Your task to perform on an android device: Open calendar and show me the fourth week of next month Image 0: 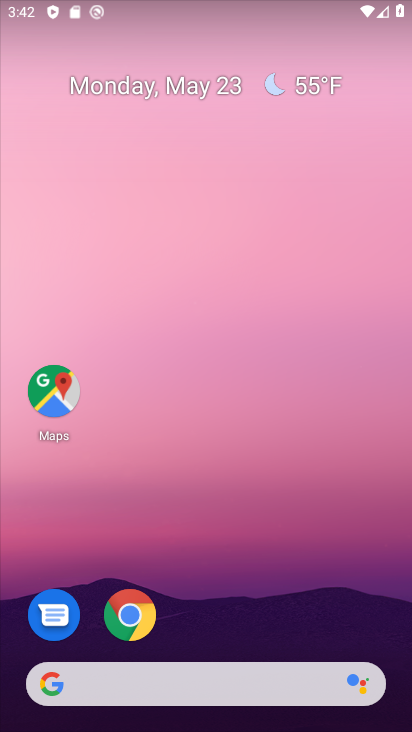
Step 0: drag from (373, 614) to (317, 98)
Your task to perform on an android device: Open calendar and show me the fourth week of next month Image 1: 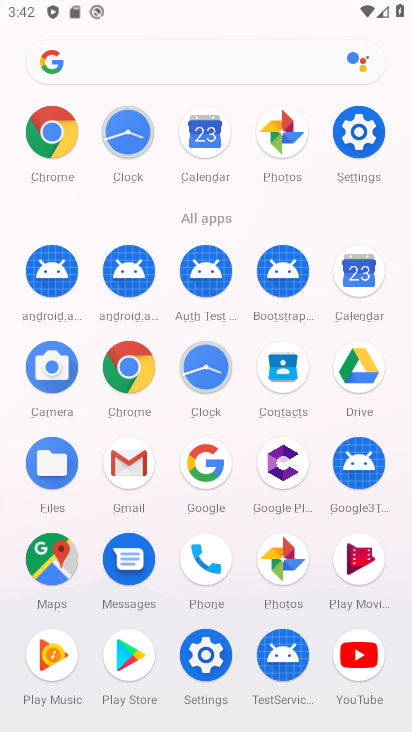
Step 1: click (353, 296)
Your task to perform on an android device: Open calendar and show me the fourth week of next month Image 2: 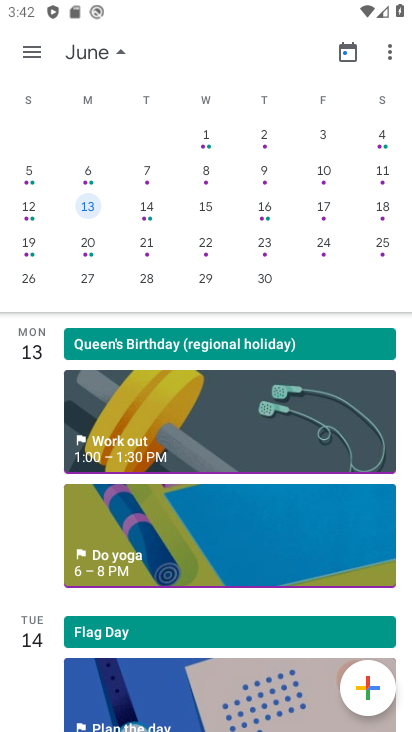
Step 2: click (94, 240)
Your task to perform on an android device: Open calendar and show me the fourth week of next month Image 3: 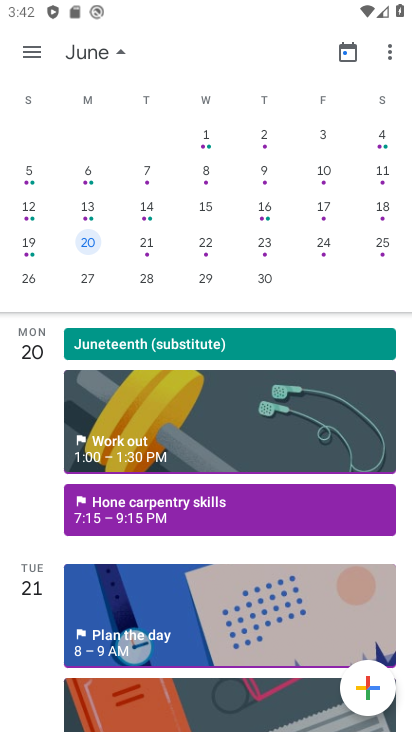
Step 3: drag from (199, 536) to (215, 314)
Your task to perform on an android device: Open calendar and show me the fourth week of next month Image 4: 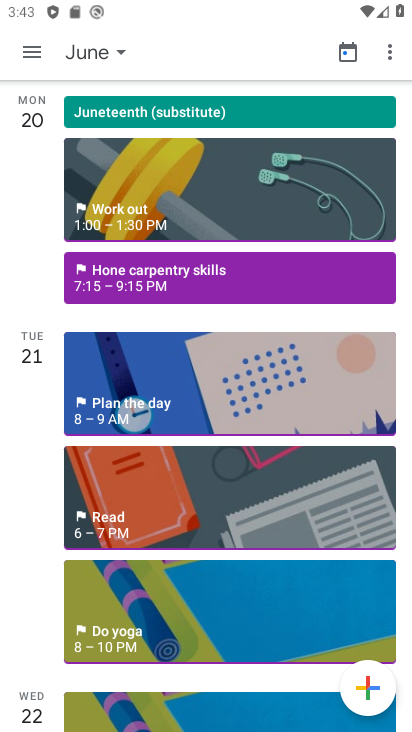
Step 4: drag from (252, 516) to (255, 359)
Your task to perform on an android device: Open calendar and show me the fourth week of next month Image 5: 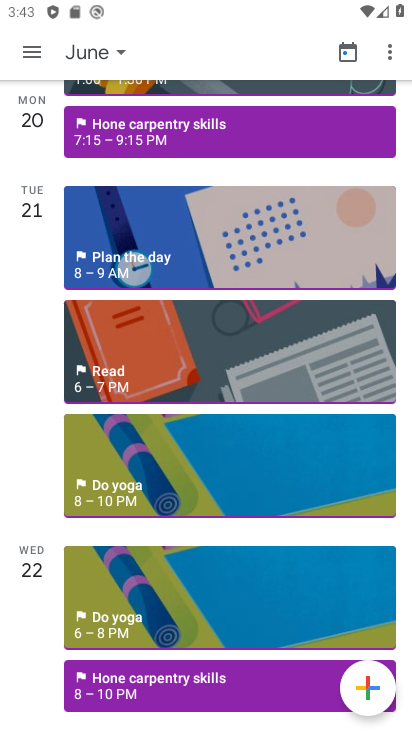
Step 5: drag from (259, 570) to (268, 362)
Your task to perform on an android device: Open calendar and show me the fourth week of next month Image 6: 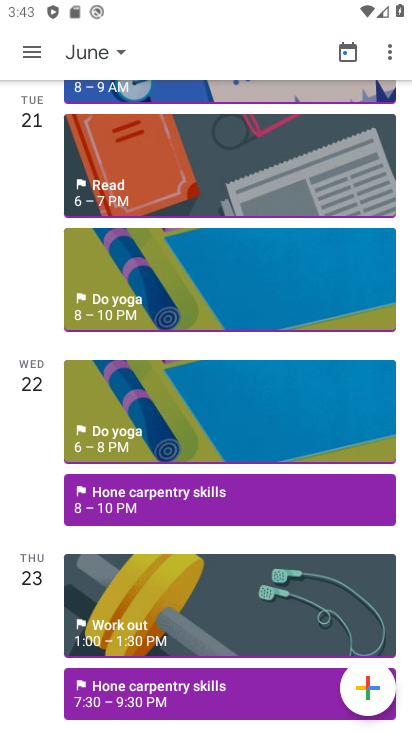
Step 6: drag from (231, 536) to (253, 401)
Your task to perform on an android device: Open calendar and show me the fourth week of next month Image 7: 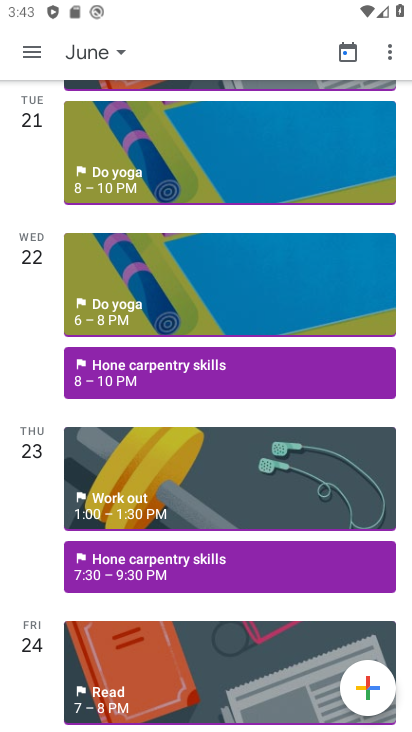
Step 7: drag from (238, 205) to (226, 489)
Your task to perform on an android device: Open calendar and show me the fourth week of next month Image 8: 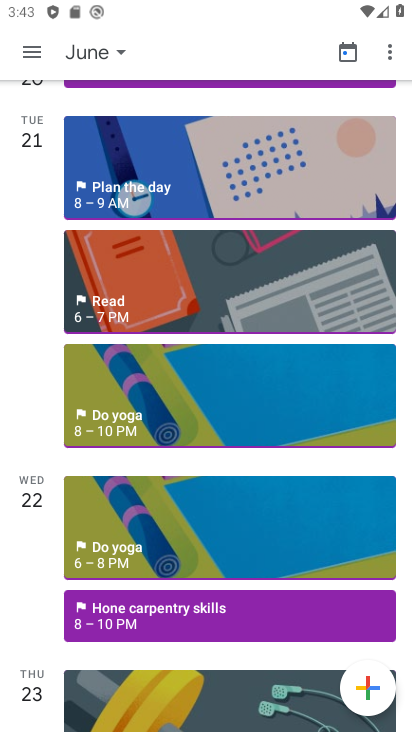
Step 8: drag from (227, 244) to (211, 455)
Your task to perform on an android device: Open calendar and show me the fourth week of next month Image 9: 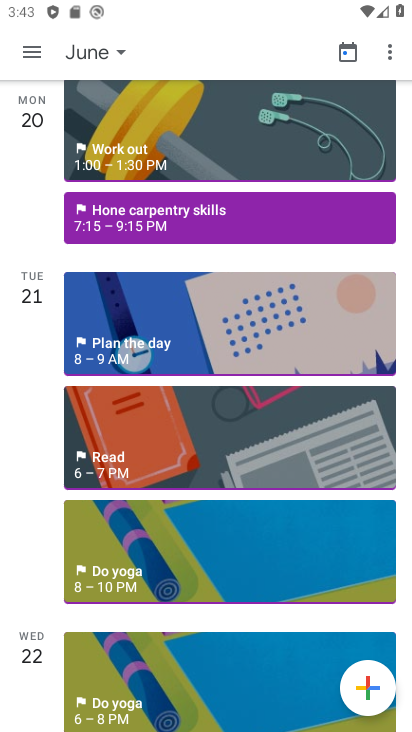
Step 9: drag from (254, 631) to (266, 408)
Your task to perform on an android device: Open calendar and show me the fourth week of next month Image 10: 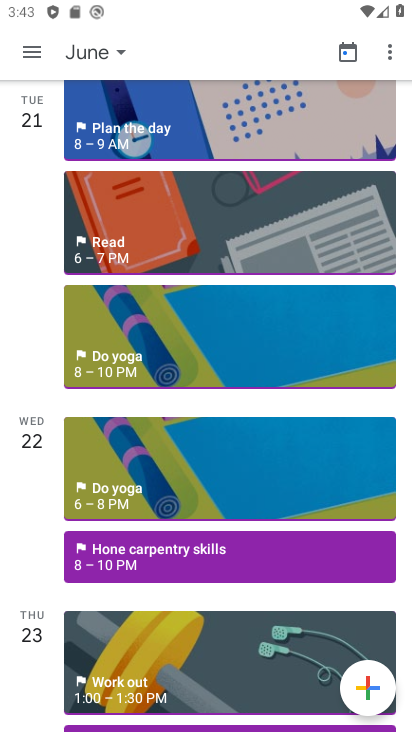
Step 10: click (124, 50)
Your task to perform on an android device: Open calendar and show me the fourth week of next month Image 11: 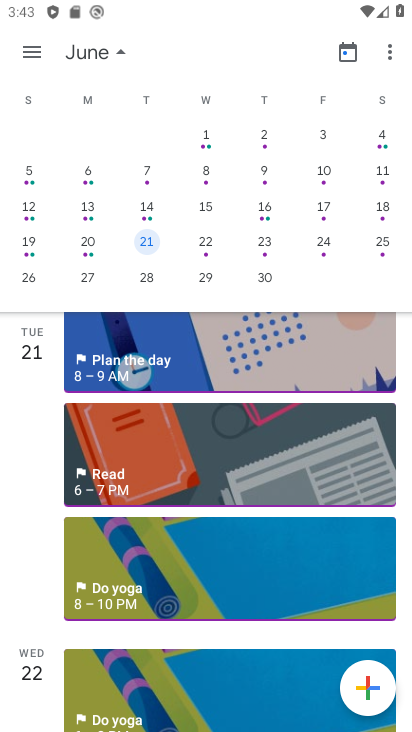
Step 11: click (86, 238)
Your task to perform on an android device: Open calendar and show me the fourth week of next month Image 12: 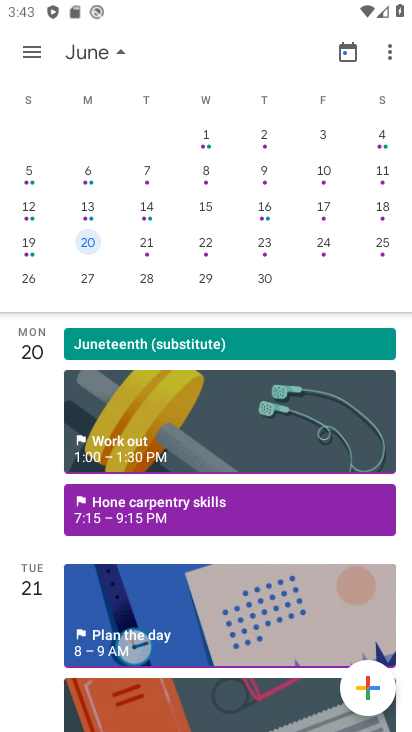
Step 12: task complete